Your task to perform on an android device: Check the weather Image 0: 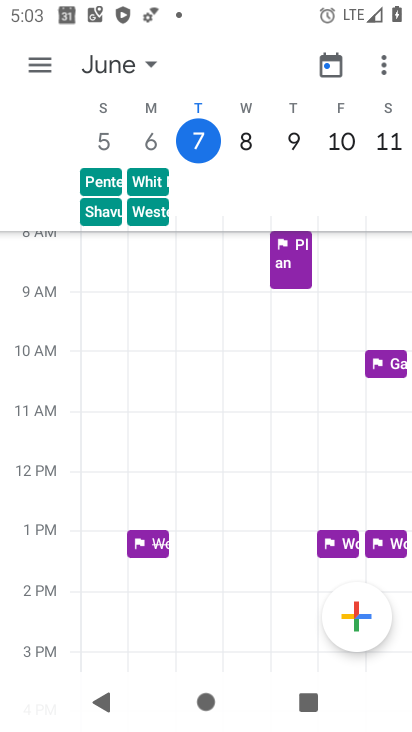
Step 0: press back button
Your task to perform on an android device: Check the weather Image 1: 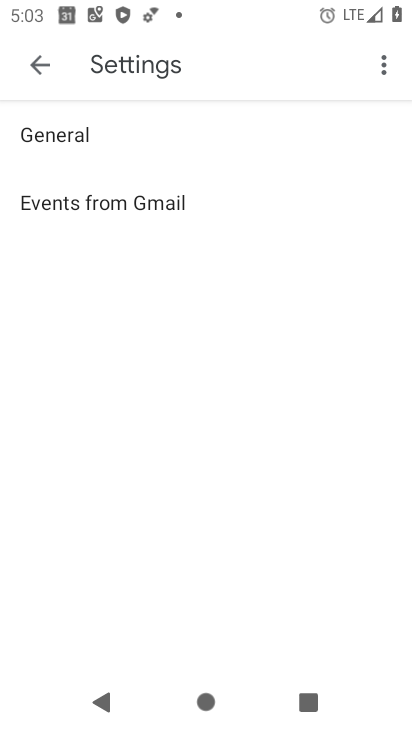
Step 1: press back button
Your task to perform on an android device: Check the weather Image 2: 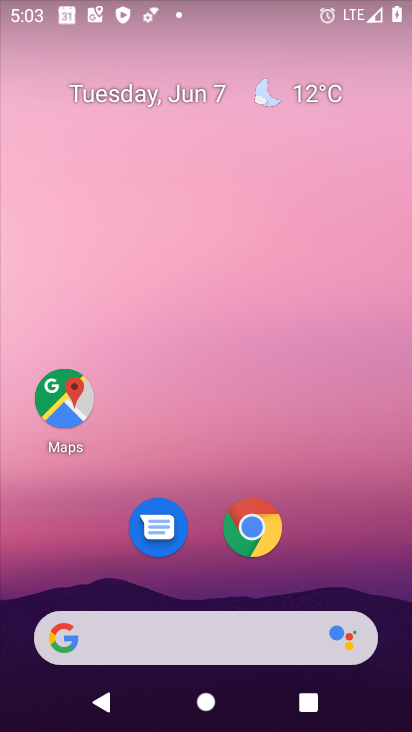
Step 2: drag from (328, 569) to (242, 37)
Your task to perform on an android device: Check the weather Image 3: 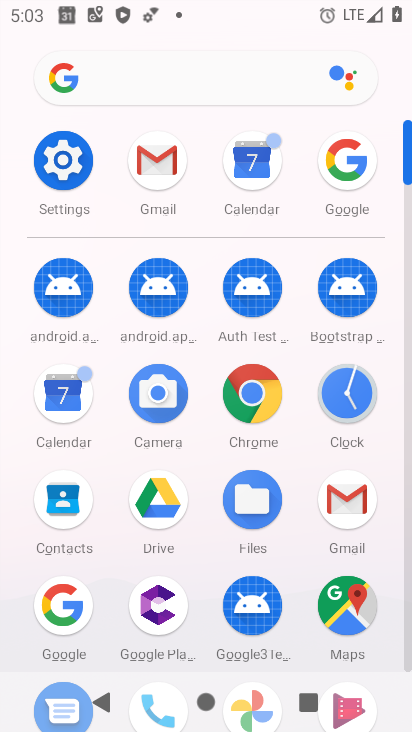
Step 3: click (347, 158)
Your task to perform on an android device: Check the weather Image 4: 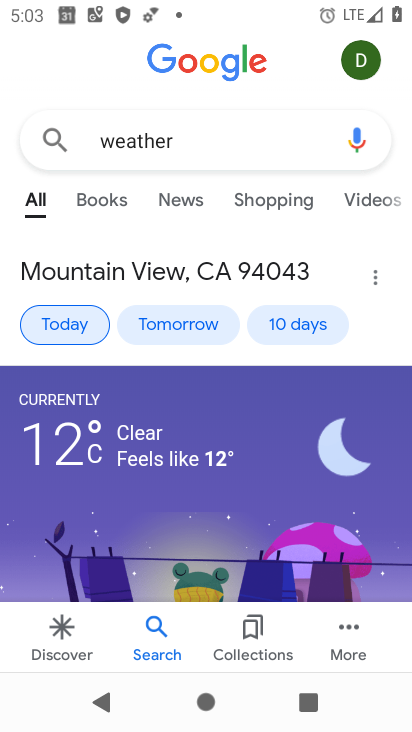
Step 4: task complete